Your task to perform on an android device: Search for Mexican restaurants on Maps Image 0: 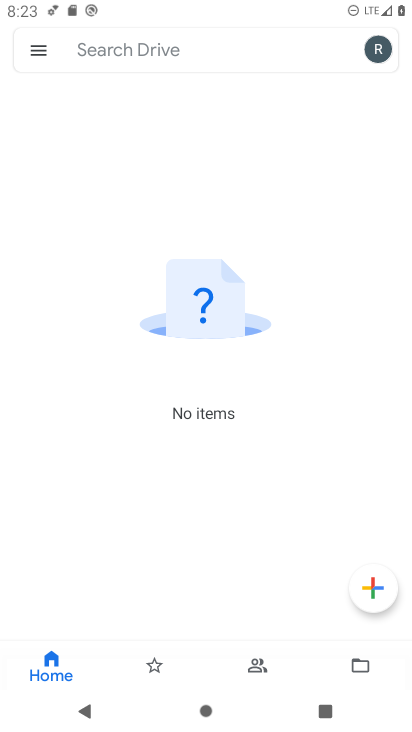
Step 0: press home button
Your task to perform on an android device: Search for Mexican restaurants on Maps Image 1: 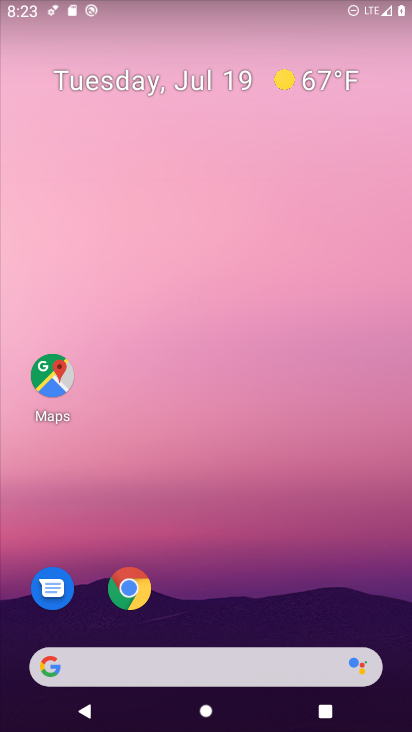
Step 1: drag from (337, 594) to (338, 146)
Your task to perform on an android device: Search for Mexican restaurants on Maps Image 2: 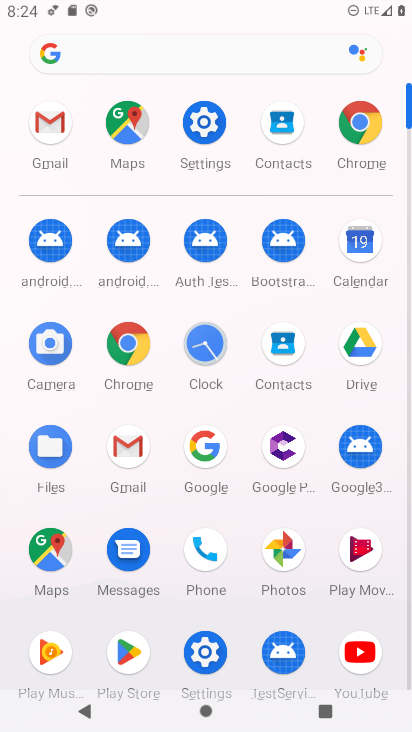
Step 2: click (55, 545)
Your task to perform on an android device: Search for Mexican restaurants on Maps Image 3: 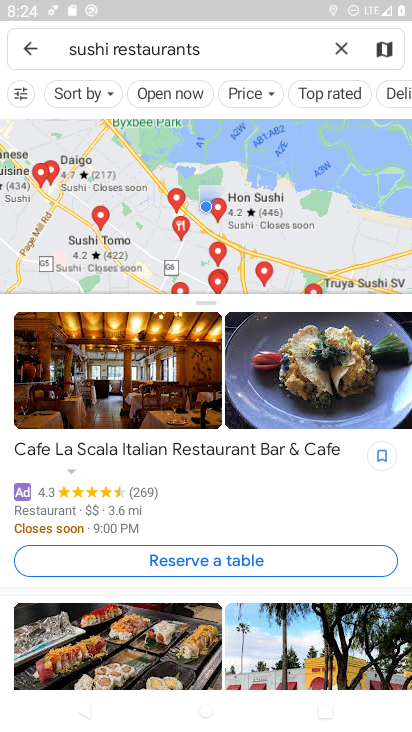
Step 3: press back button
Your task to perform on an android device: Search for Mexican restaurants on Maps Image 4: 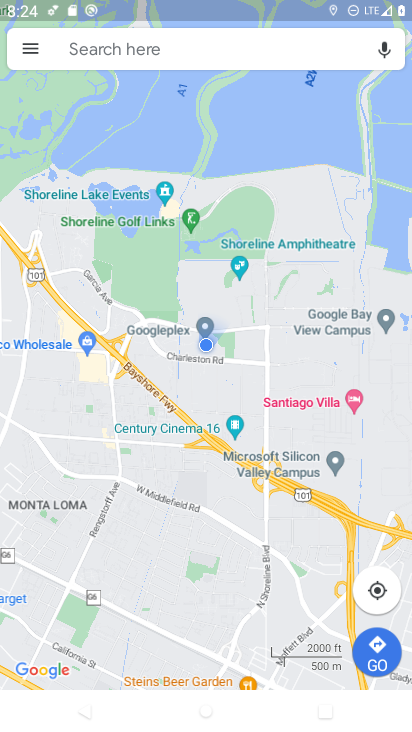
Step 4: click (212, 37)
Your task to perform on an android device: Search for Mexican restaurants on Maps Image 5: 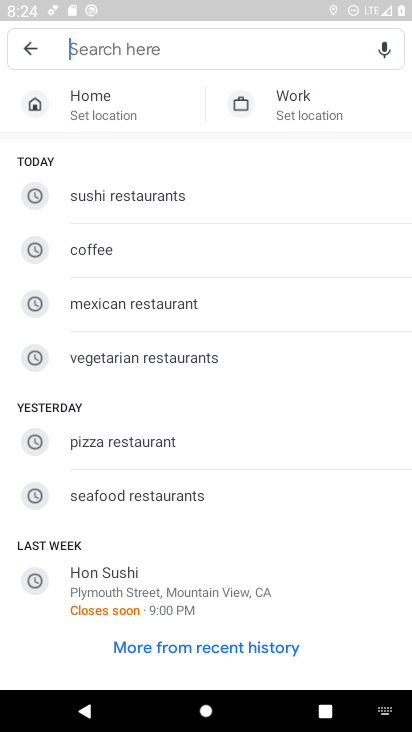
Step 5: type "mexican restaurants"
Your task to perform on an android device: Search for Mexican restaurants on Maps Image 6: 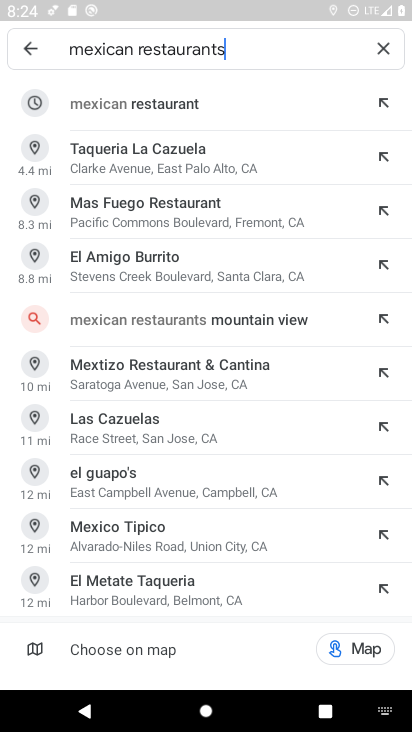
Step 6: click (274, 115)
Your task to perform on an android device: Search for Mexican restaurants on Maps Image 7: 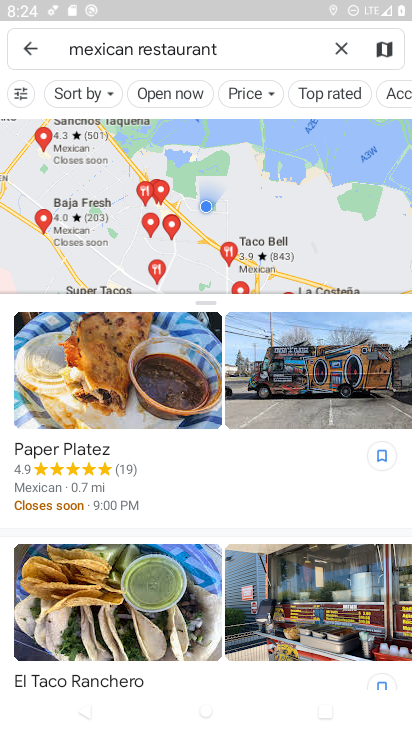
Step 7: task complete